Your task to perform on an android device: turn on data saver in the chrome app Image 0: 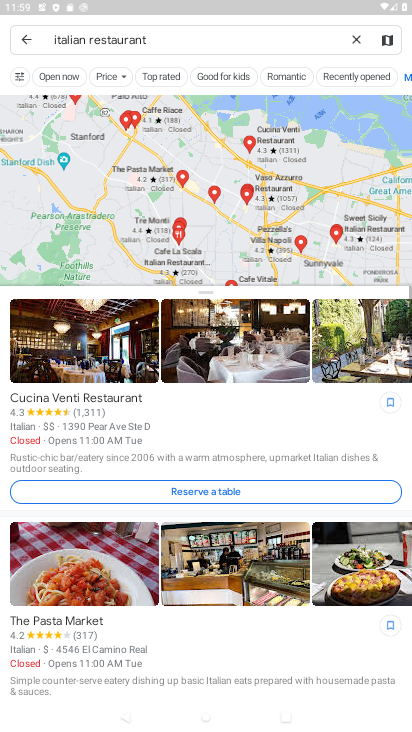
Step 0: press home button
Your task to perform on an android device: turn on data saver in the chrome app Image 1: 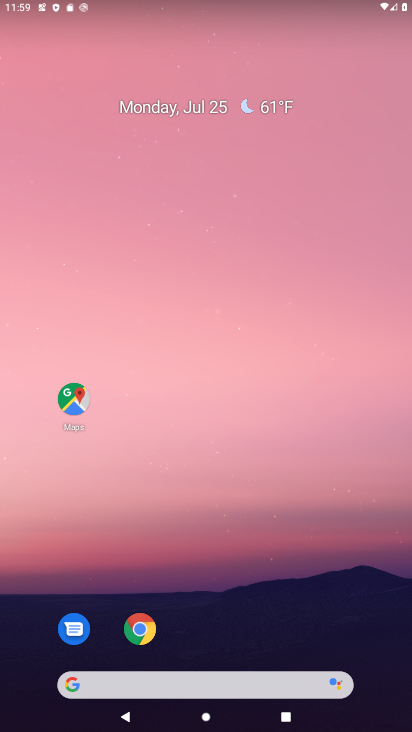
Step 1: click (152, 620)
Your task to perform on an android device: turn on data saver in the chrome app Image 2: 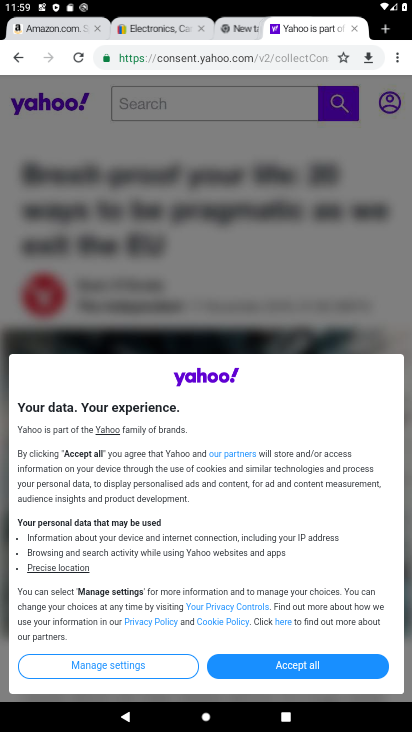
Step 2: drag from (399, 55) to (296, 382)
Your task to perform on an android device: turn on data saver in the chrome app Image 3: 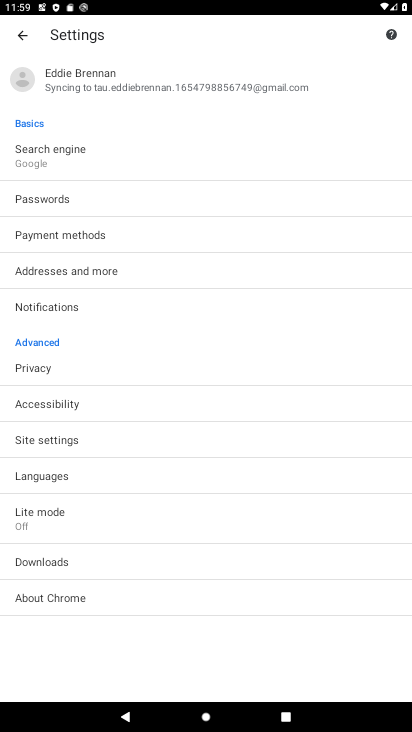
Step 3: click (77, 516)
Your task to perform on an android device: turn on data saver in the chrome app Image 4: 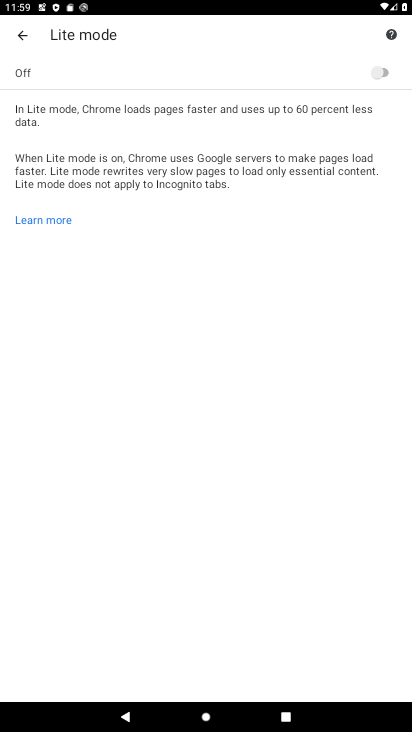
Step 4: click (390, 73)
Your task to perform on an android device: turn on data saver in the chrome app Image 5: 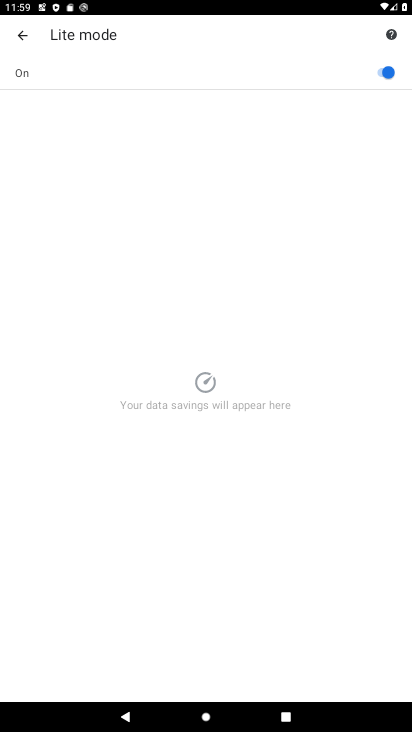
Step 5: task complete